Your task to perform on an android device: Open Reddit.com Image 0: 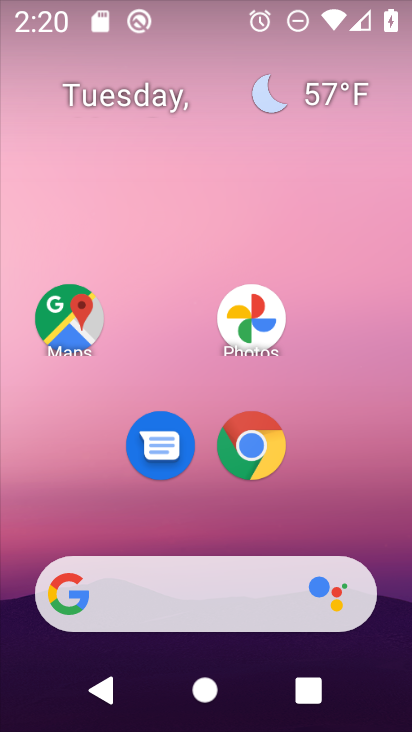
Step 0: drag from (391, 543) to (388, 174)
Your task to perform on an android device: Open Reddit.com Image 1: 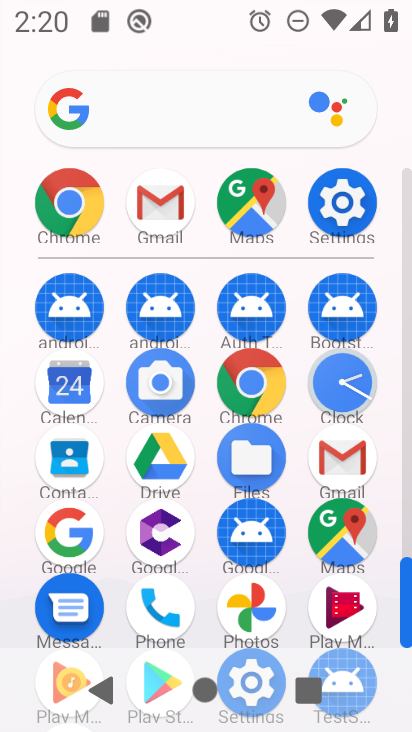
Step 1: click (253, 378)
Your task to perform on an android device: Open Reddit.com Image 2: 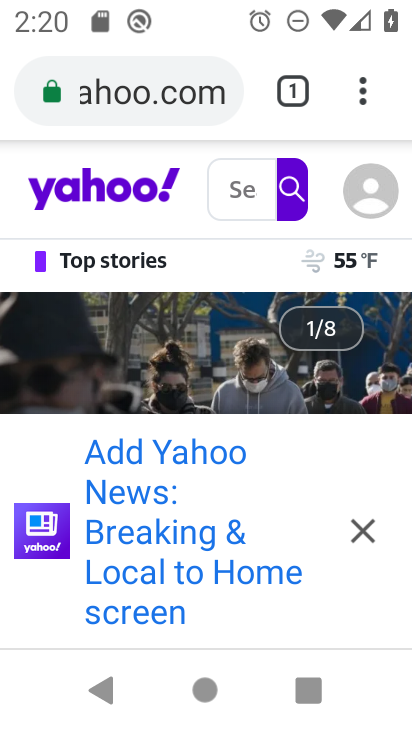
Step 2: press back button
Your task to perform on an android device: Open Reddit.com Image 3: 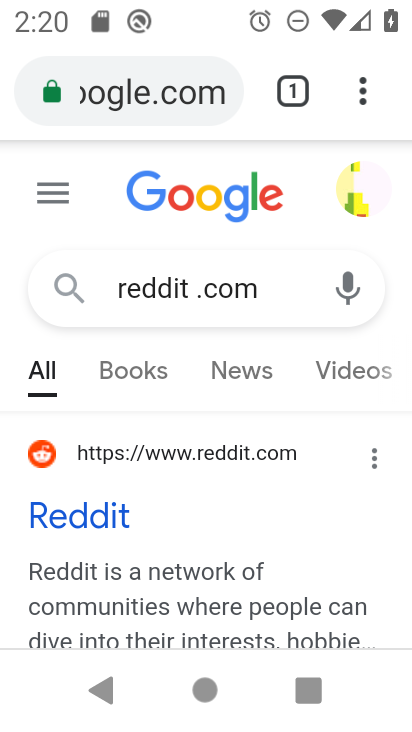
Step 3: click (81, 515)
Your task to perform on an android device: Open Reddit.com Image 4: 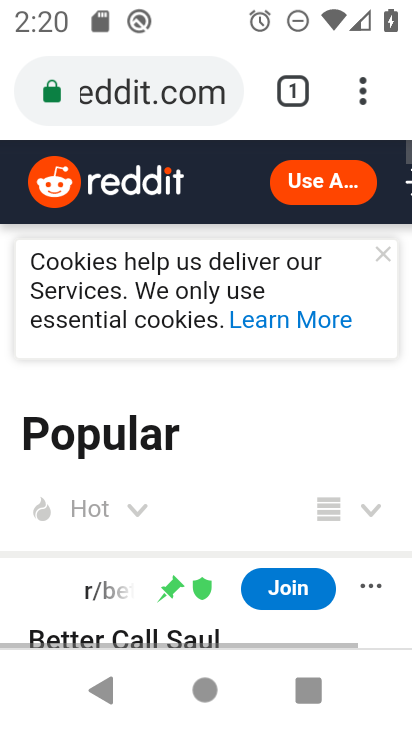
Step 4: task complete